Your task to perform on an android device: check data usage Image 0: 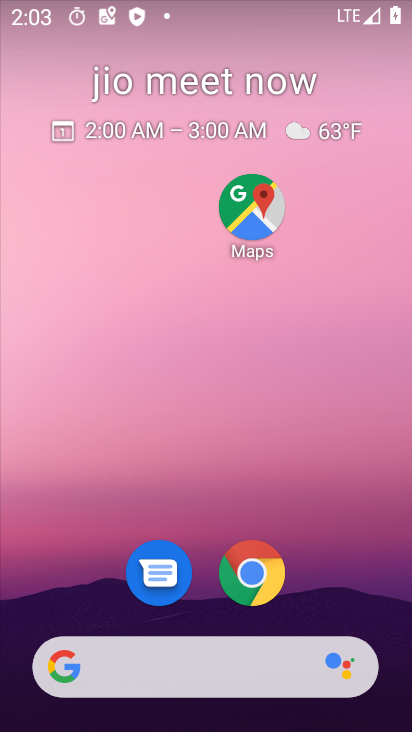
Step 0: drag from (54, 517) to (234, 75)
Your task to perform on an android device: check data usage Image 1: 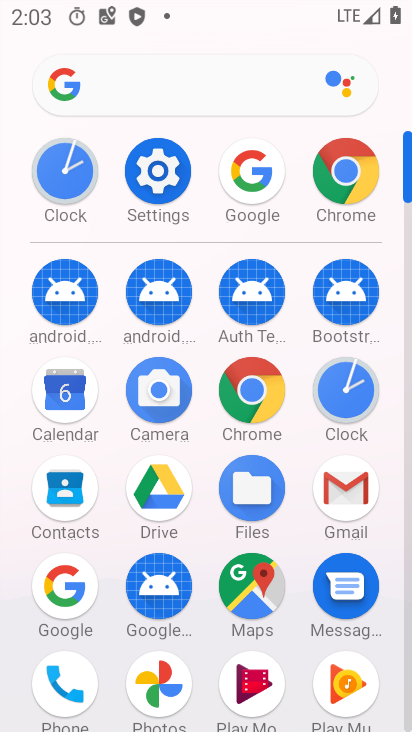
Step 1: click (138, 167)
Your task to perform on an android device: check data usage Image 2: 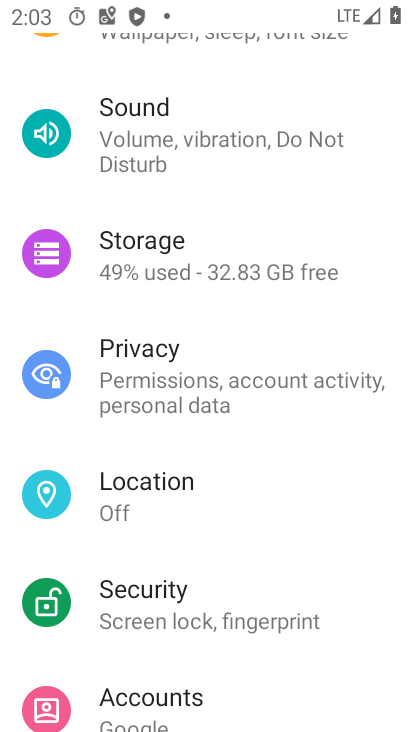
Step 2: drag from (165, 124) to (107, 605)
Your task to perform on an android device: check data usage Image 3: 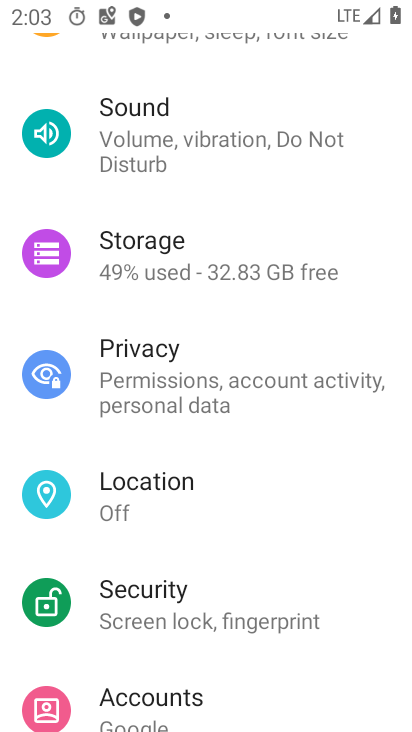
Step 3: drag from (37, 179) to (150, 617)
Your task to perform on an android device: check data usage Image 4: 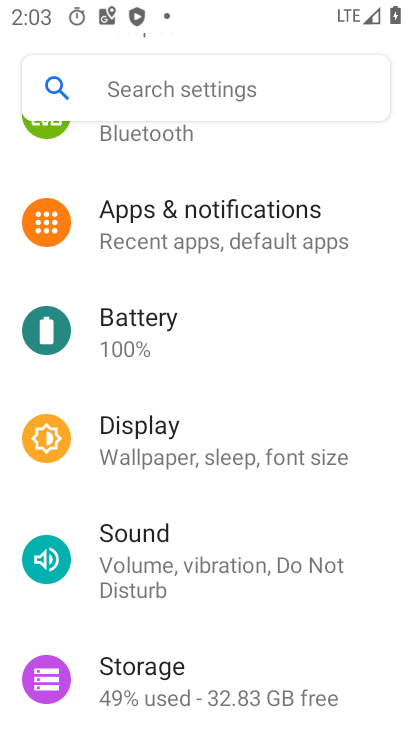
Step 4: drag from (181, 200) to (118, 717)
Your task to perform on an android device: check data usage Image 5: 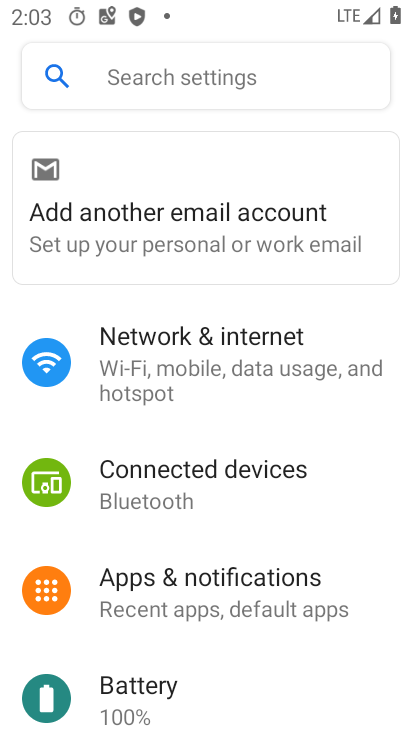
Step 5: click (179, 362)
Your task to perform on an android device: check data usage Image 6: 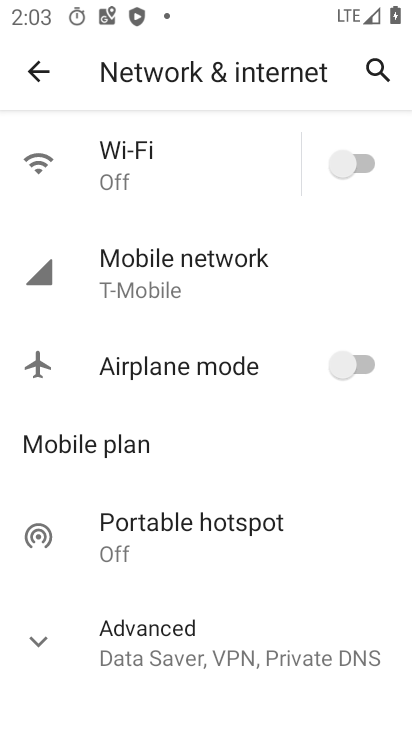
Step 6: click (197, 288)
Your task to perform on an android device: check data usage Image 7: 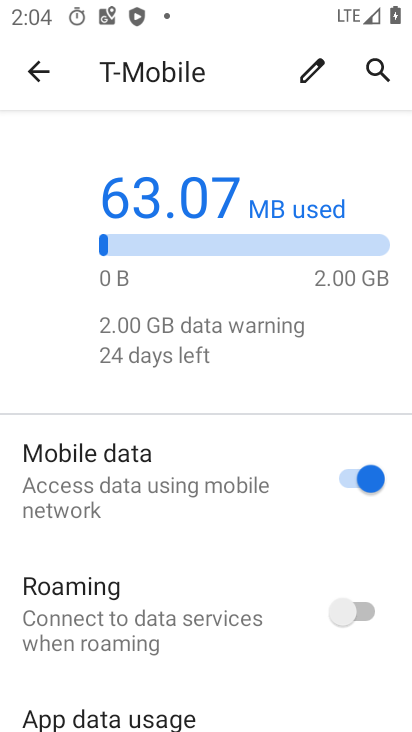
Step 7: task complete